Your task to perform on an android device: Open Youtube and go to the subscriptions tab Image 0: 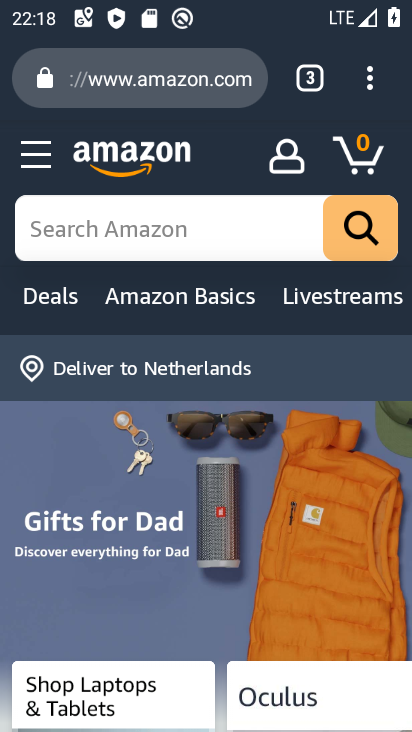
Step 0: press home button
Your task to perform on an android device: Open Youtube and go to the subscriptions tab Image 1: 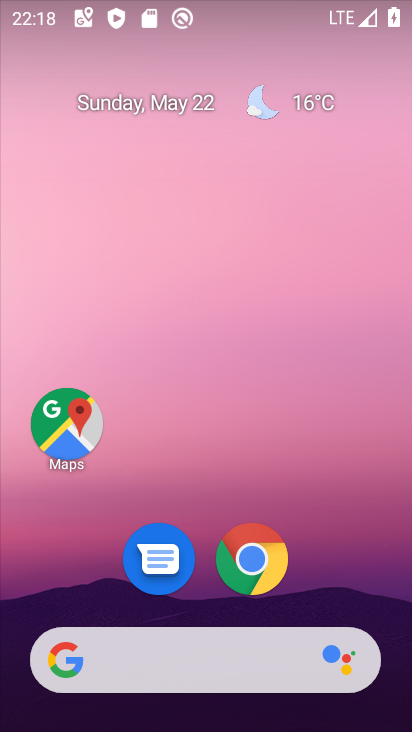
Step 1: drag from (241, 684) to (321, 146)
Your task to perform on an android device: Open Youtube and go to the subscriptions tab Image 2: 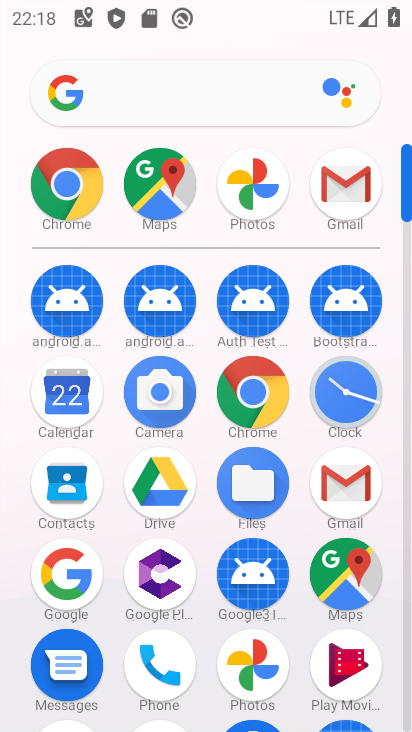
Step 2: drag from (114, 437) to (144, 234)
Your task to perform on an android device: Open Youtube and go to the subscriptions tab Image 3: 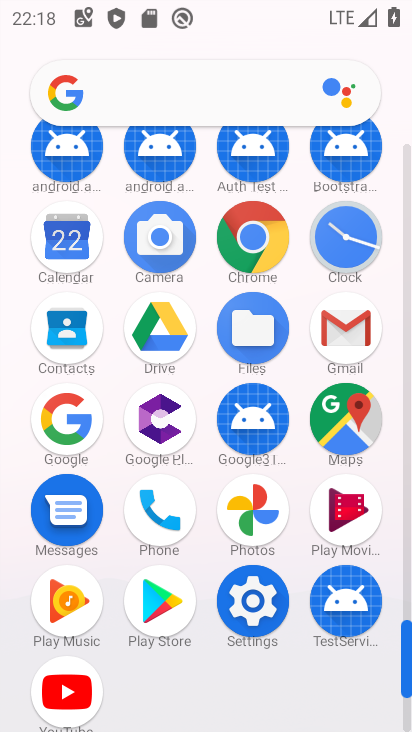
Step 3: click (75, 690)
Your task to perform on an android device: Open Youtube and go to the subscriptions tab Image 4: 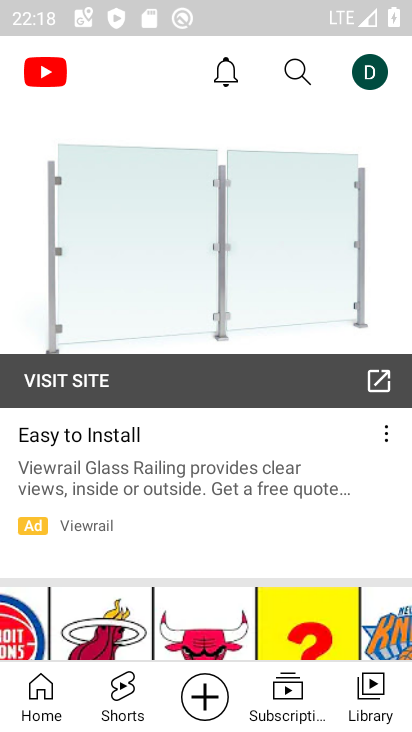
Step 4: click (302, 702)
Your task to perform on an android device: Open Youtube and go to the subscriptions tab Image 5: 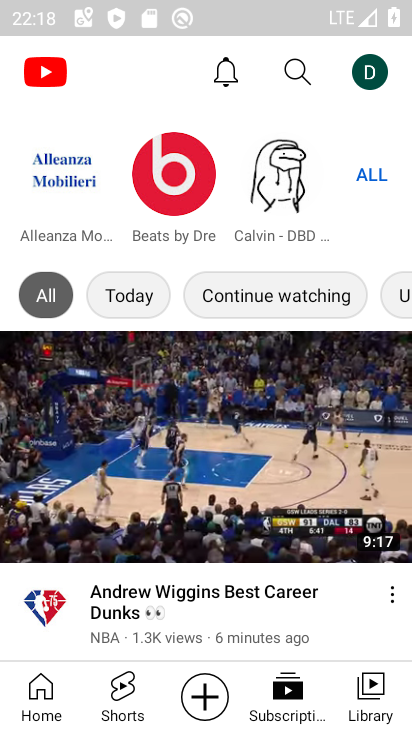
Step 5: click (279, 698)
Your task to perform on an android device: Open Youtube and go to the subscriptions tab Image 6: 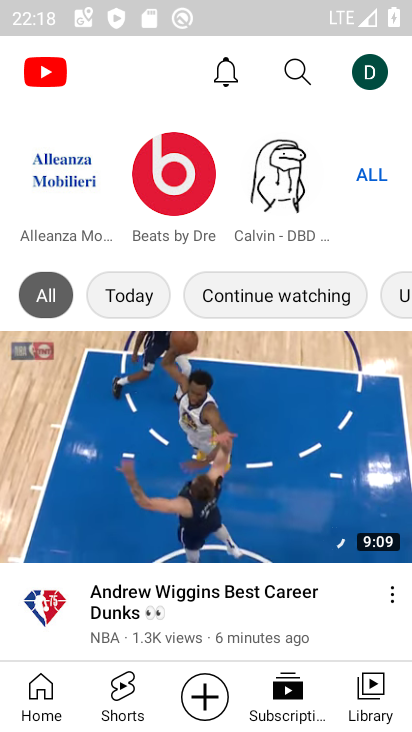
Step 6: click (301, 704)
Your task to perform on an android device: Open Youtube and go to the subscriptions tab Image 7: 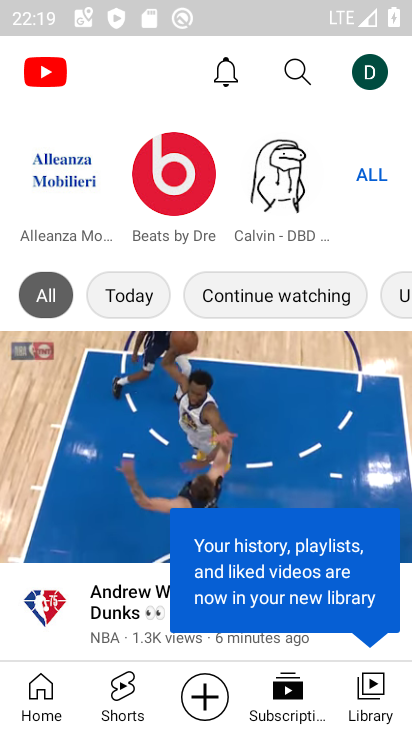
Step 7: task complete